Your task to perform on an android device: Check the news Image 0: 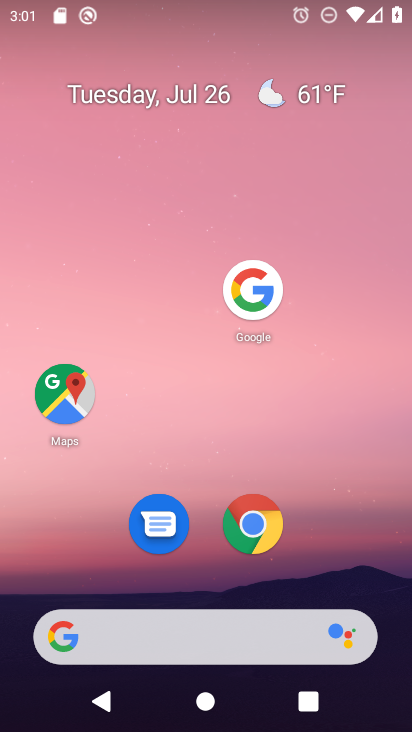
Step 0: press home button
Your task to perform on an android device: Check the news Image 1: 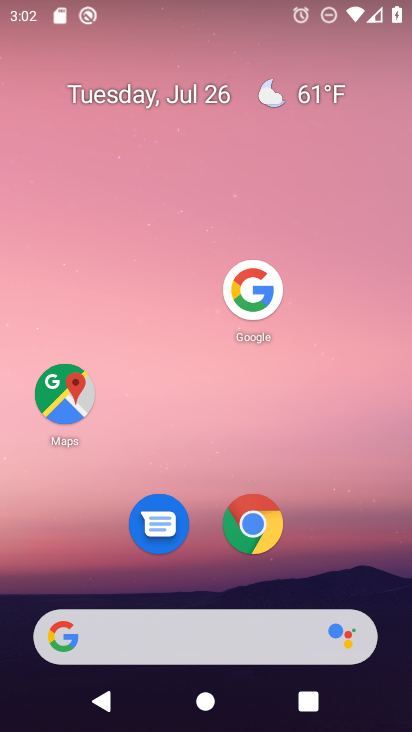
Step 1: click (150, 639)
Your task to perform on an android device: Check the news Image 2: 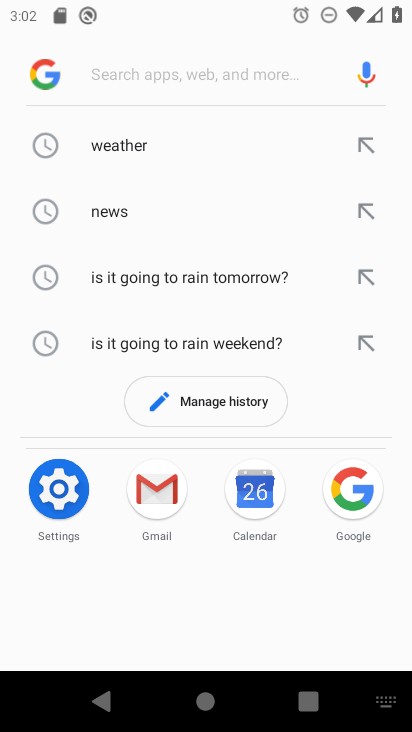
Step 2: click (129, 217)
Your task to perform on an android device: Check the news Image 3: 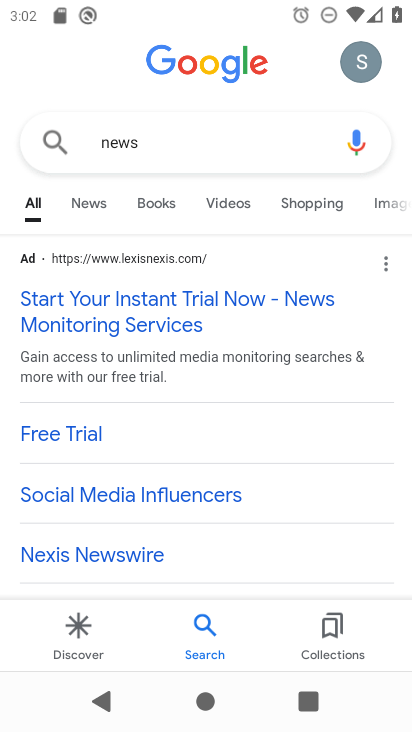
Step 3: click (86, 202)
Your task to perform on an android device: Check the news Image 4: 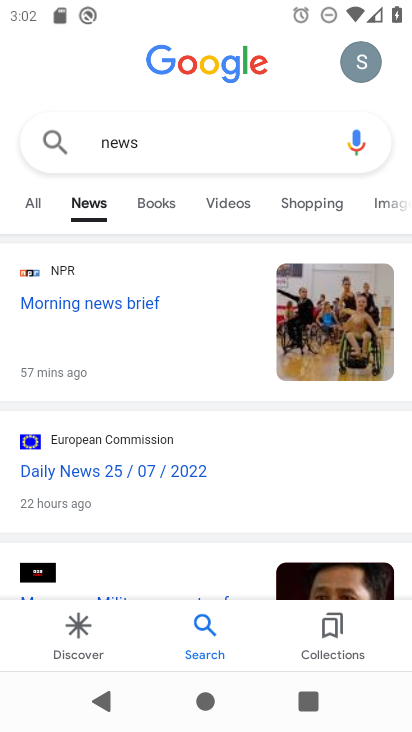
Step 4: task complete